Your task to perform on an android device: snooze an email in the gmail app Image 0: 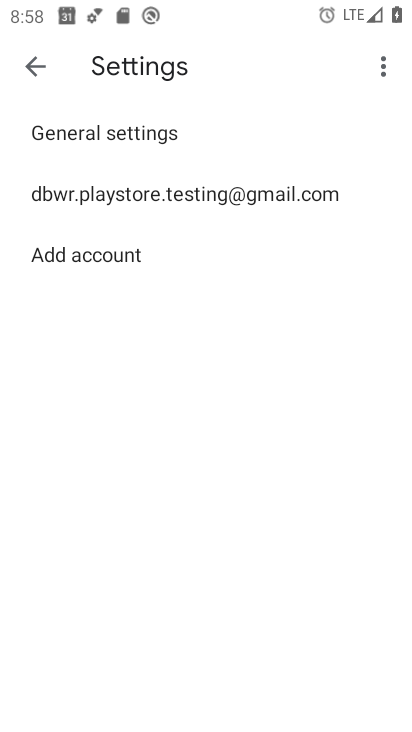
Step 0: press home button
Your task to perform on an android device: snooze an email in the gmail app Image 1: 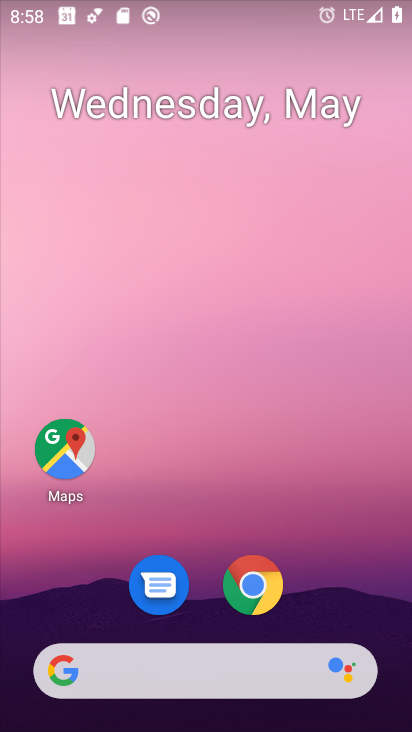
Step 1: drag from (300, 490) to (265, 45)
Your task to perform on an android device: snooze an email in the gmail app Image 2: 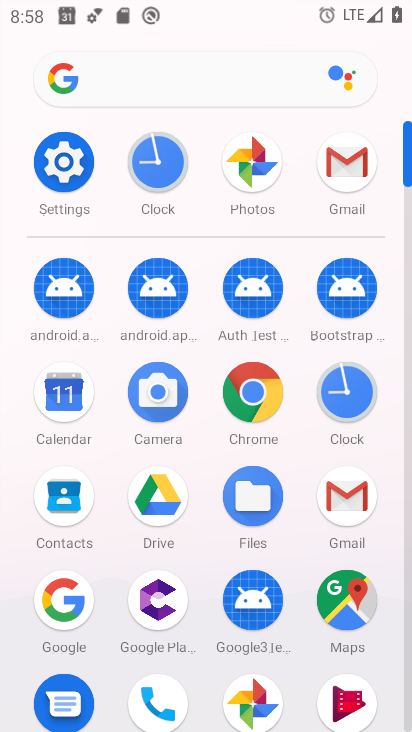
Step 2: click (344, 179)
Your task to perform on an android device: snooze an email in the gmail app Image 3: 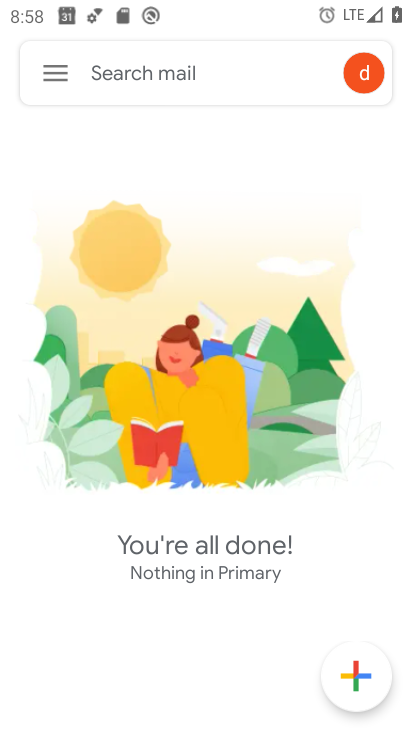
Step 3: click (55, 75)
Your task to perform on an android device: snooze an email in the gmail app Image 4: 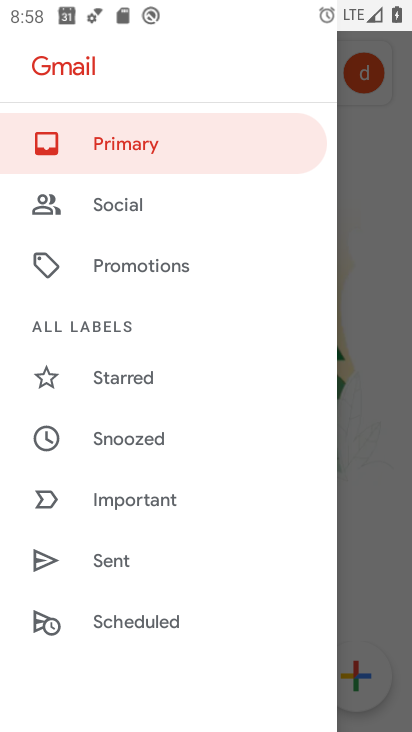
Step 4: drag from (160, 539) to (178, 132)
Your task to perform on an android device: snooze an email in the gmail app Image 5: 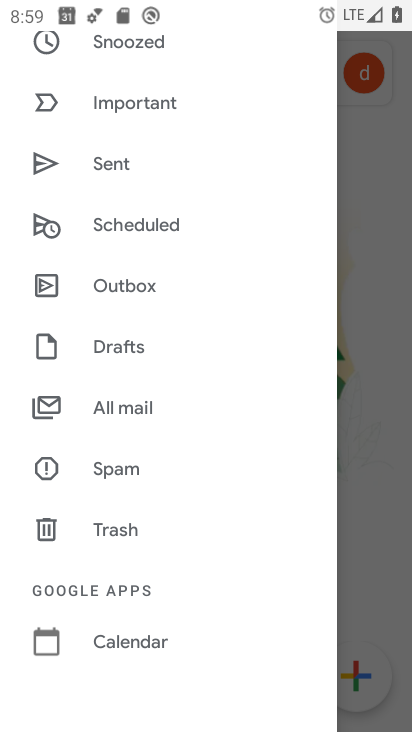
Step 5: click (143, 393)
Your task to perform on an android device: snooze an email in the gmail app Image 6: 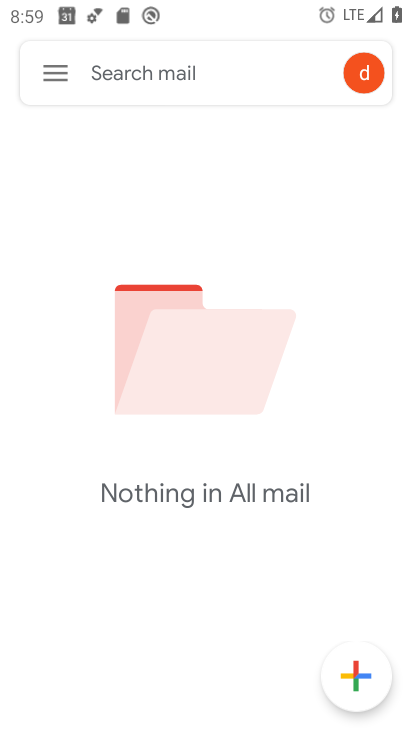
Step 6: task complete